Your task to perform on an android device: turn on location history Image 0: 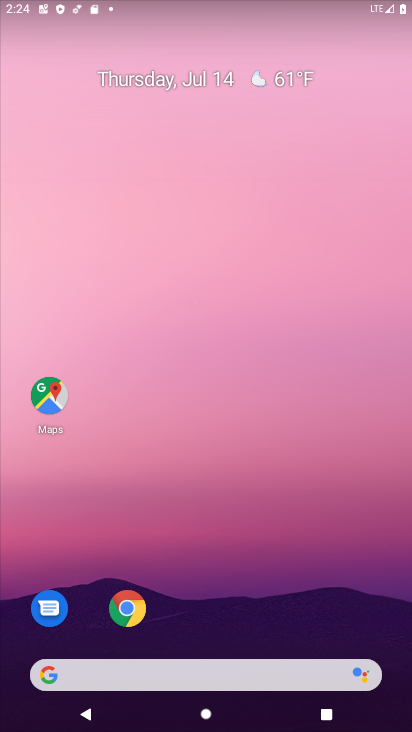
Step 0: drag from (187, 657) to (187, 336)
Your task to perform on an android device: turn on location history Image 1: 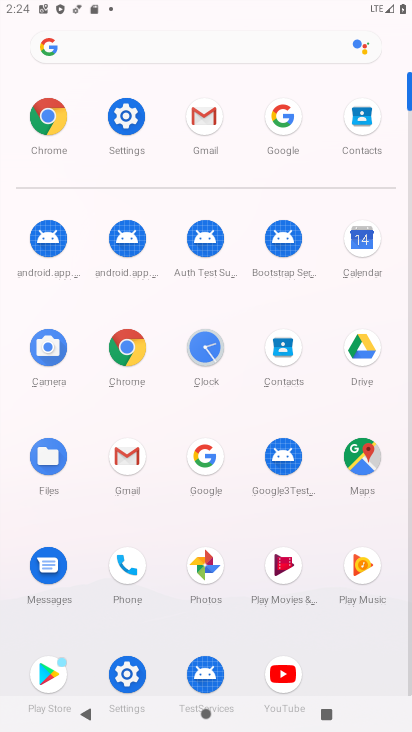
Step 1: click (129, 672)
Your task to perform on an android device: turn on location history Image 2: 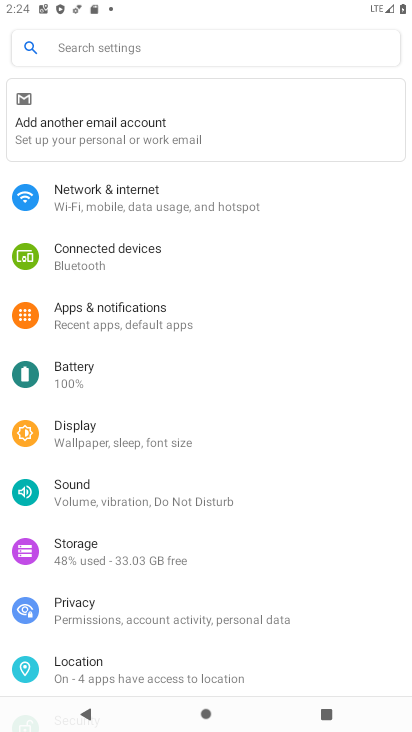
Step 2: click (83, 663)
Your task to perform on an android device: turn on location history Image 3: 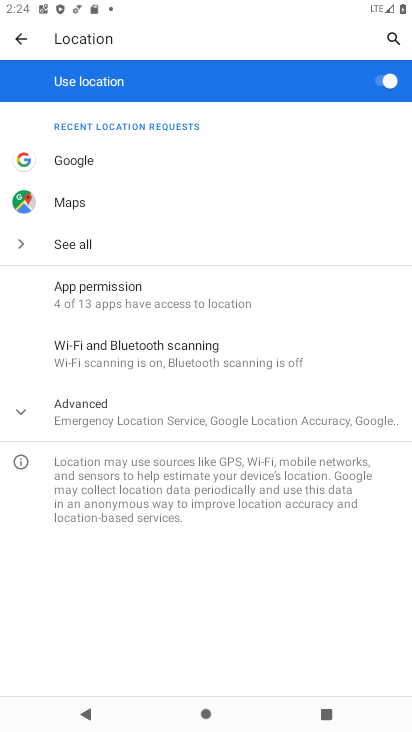
Step 3: click (79, 409)
Your task to perform on an android device: turn on location history Image 4: 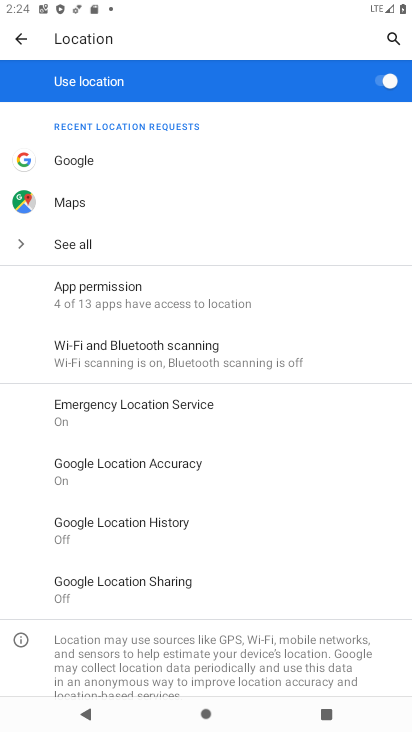
Step 4: click (106, 528)
Your task to perform on an android device: turn on location history Image 5: 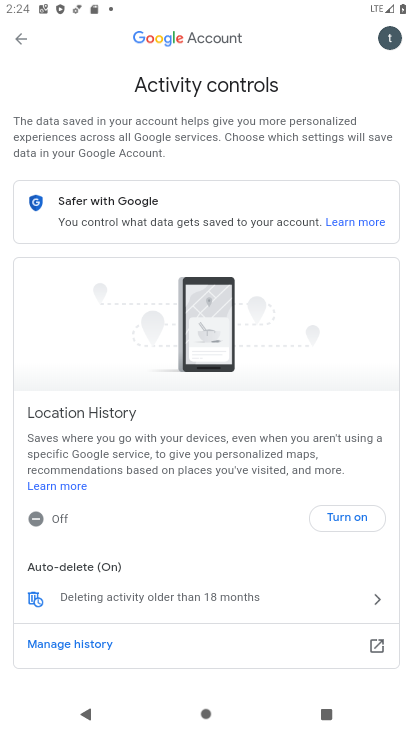
Step 5: click (344, 517)
Your task to perform on an android device: turn on location history Image 6: 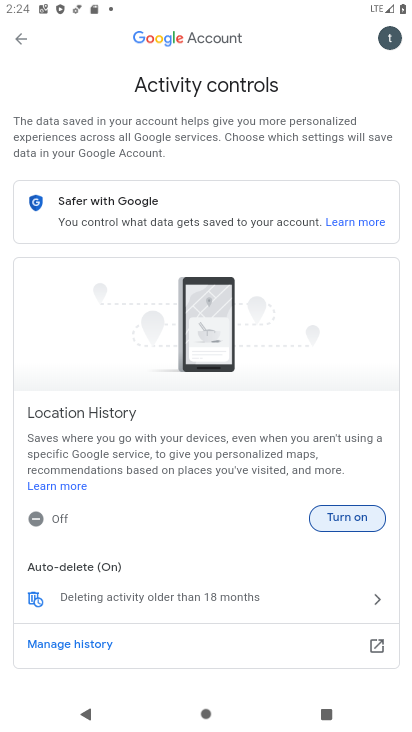
Step 6: click (344, 517)
Your task to perform on an android device: turn on location history Image 7: 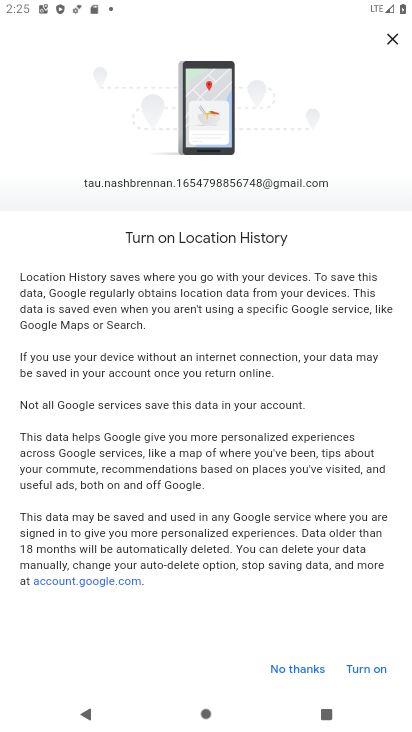
Step 7: click (360, 664)
Your task to perform on an android device: turn on location history Image 8: 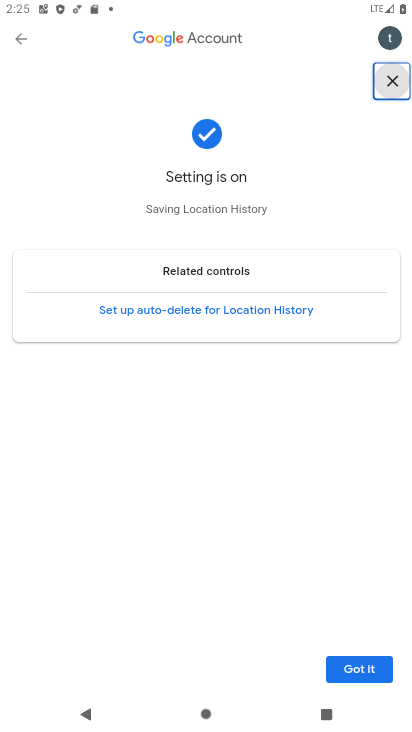
Step 8: click (375, 671)
Your task to perform on an android device: turn on location history Image 9: 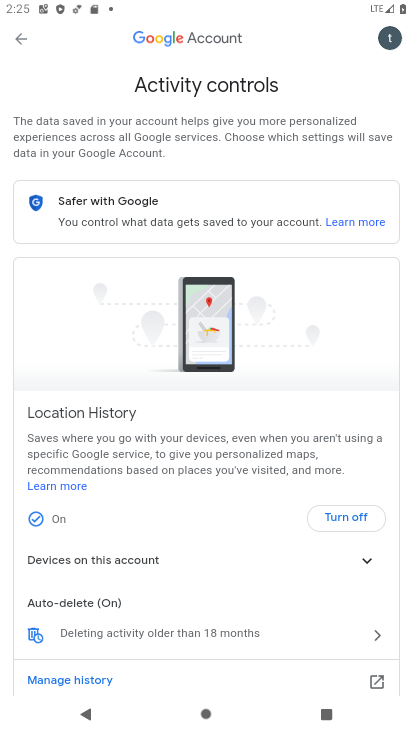
Step 9: task complete